Your task to perform on an android device: Open Google Maps and go to "Timeline" Image 0: 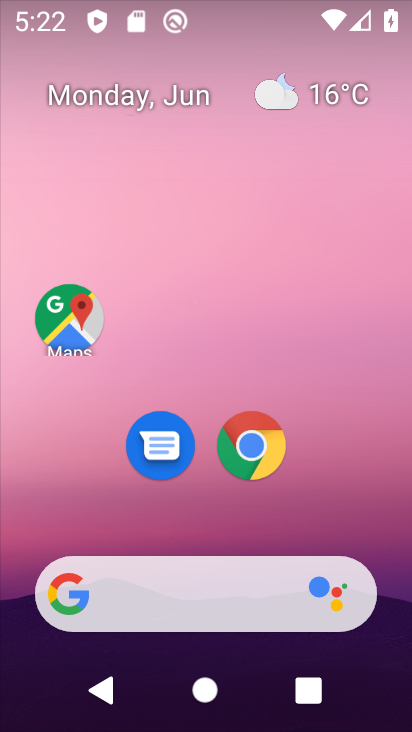
Step 0: click (71, 320)
Your task to perform on an android device: Open Google Maps and go to "Timeline" Image 1: 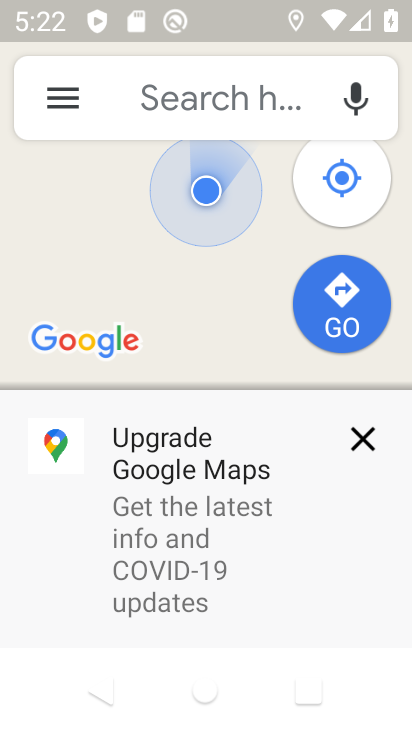
Step 1: click (63, 97)
Your task to perform on an android device: Open Google Maps and go to "Timeline" Image 2: 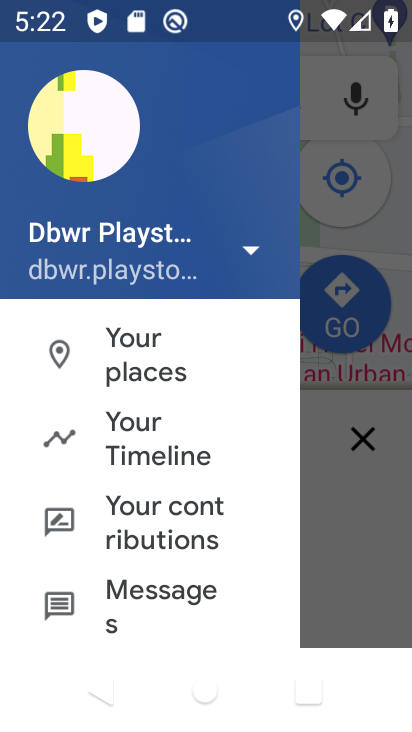
Step 2: click (151, 456)
Your task to perform on an android device: Open Google Maps and go to "Timeline" Image 3: 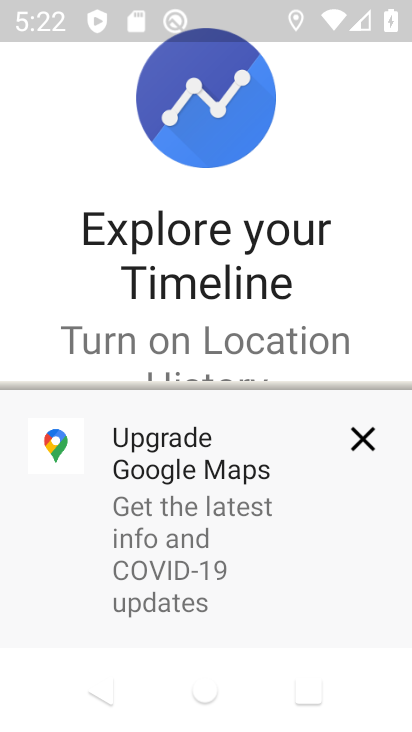
Step 3: click (367, 437)
Your task to perform on an android device: Open Google Maps and go to "Timeline" Image 4: 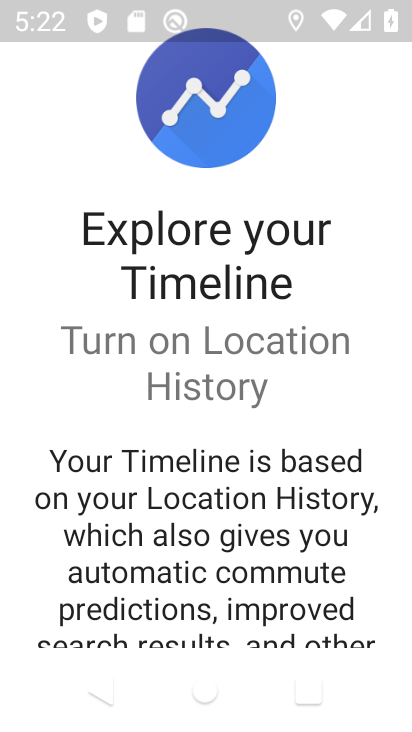
Step 4: drag from (280, 591) to (325, 380)
Your task to perform on an android device: Open Google Maps and go to "Timeline" Image 5: 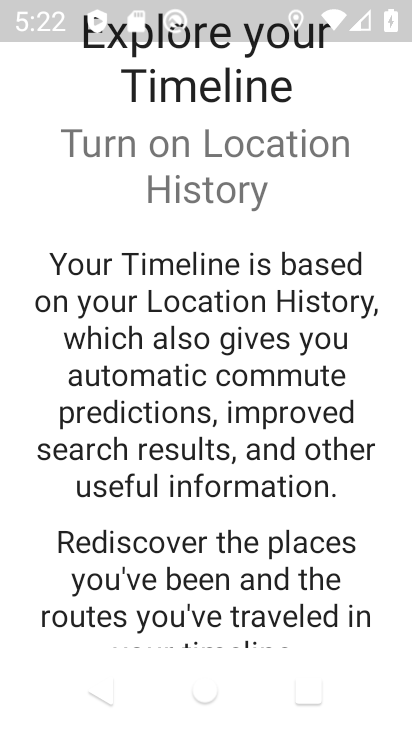
Step 5: drag from (286, 573) to (327, 235)
Your task to perform on an android device: Open Google Maps and go to "Timeline" Image 6: 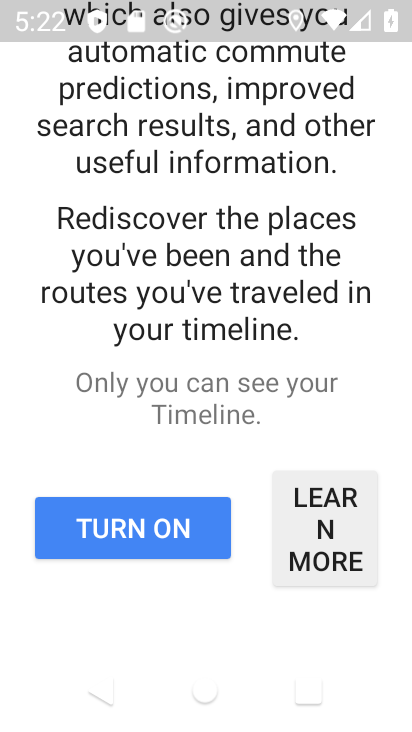
Step 6: drag from (318, 559) to (359, 252)
Your task to perform on an android device: Open Google Maps and go to "Timeline" Image 7: 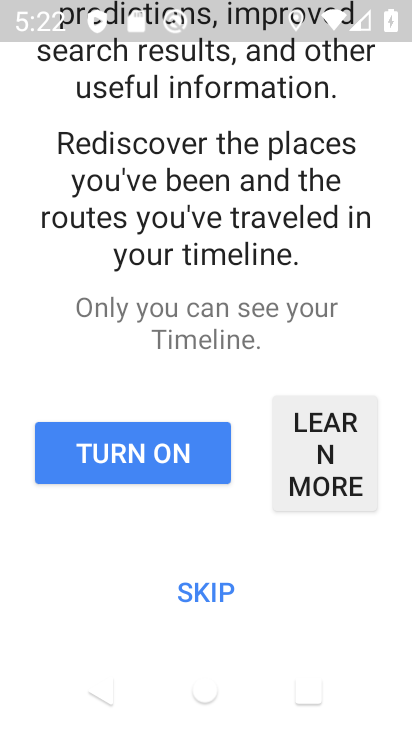
Step 7: click (238, 624)
Your task to perform on an android device: Open Google Maps and go to "Timeline" Image 8: 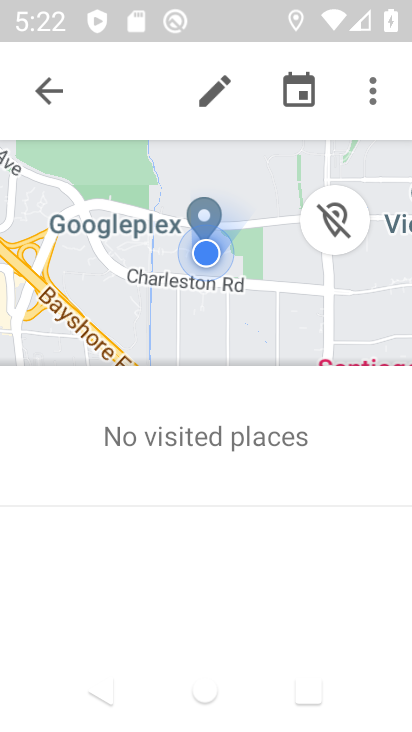
Step 8: task complete